Your task to perform on an android device: visit the assistant section in the google photos Image 0: 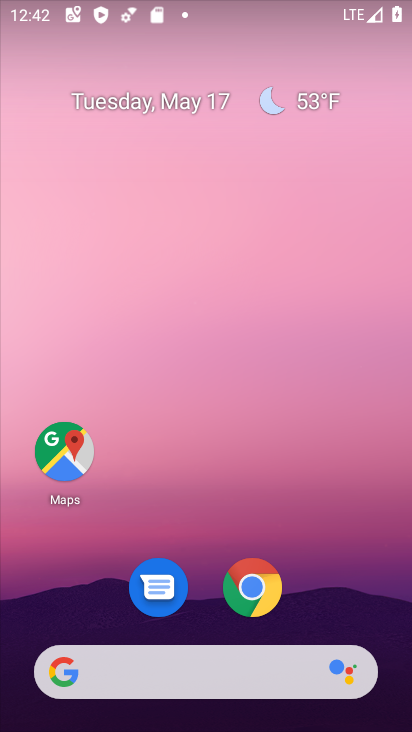
Step 0: drag from (214, 636) to (171, 46)
Your task to perform on an android device: visit the assistant section in the google photos Image 1: 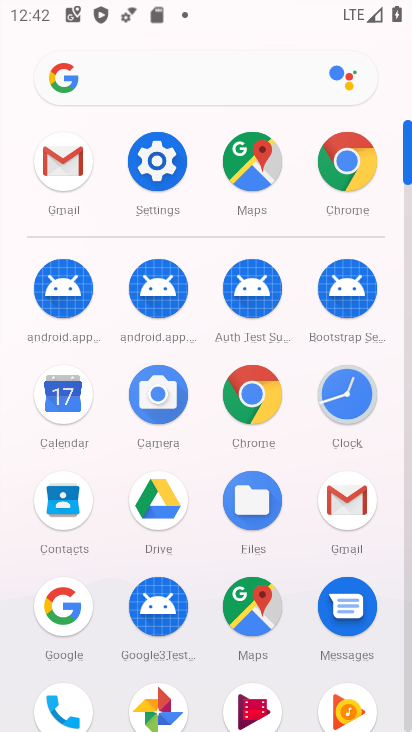
Step 1: click (160, 705)
Your task to perform on an android device: visit the assistant section in the google photos Image 2: 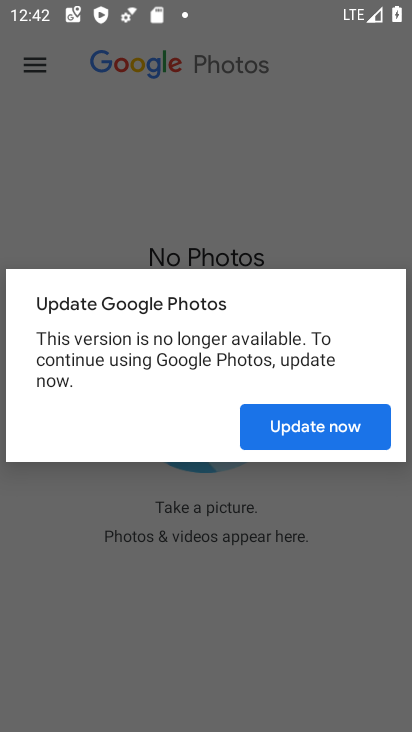
Step 2: click (367, 420)
Your task to perform on an android device: visit the assistant section in the google photos Image 3: 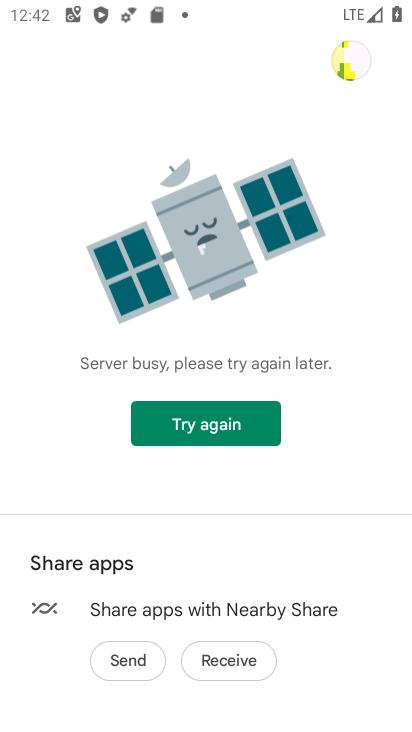
Step 3: click (169, 419)
Your task to perform on an android device: visit the assistant section in the google photos Image 4: 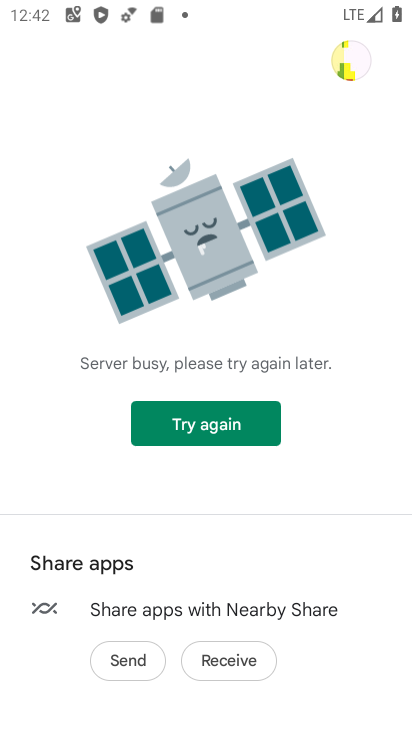
Step 4: task complete